Your task to perform on an android device: move an email to a new category in the gmail app Image 0: 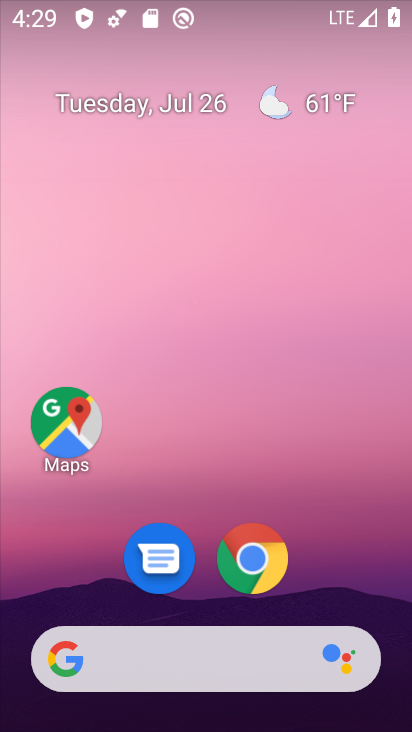
Step 0: drag from (183, 558) to (261, 1)
Your task to perform on an android device: move an email to a new category in the gmail app Image 1: 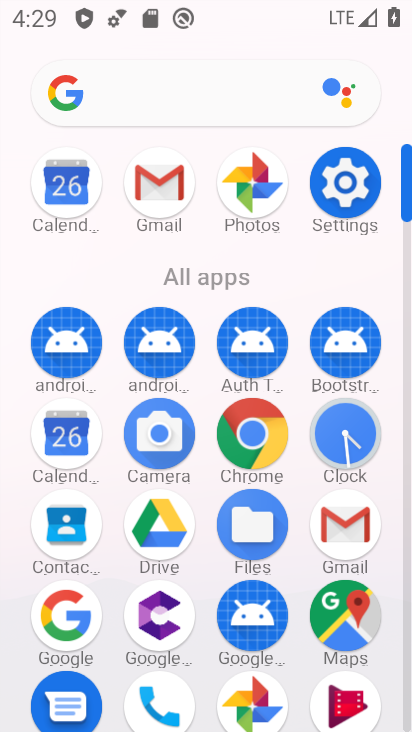
Step 1: click (169, 182)
Your task to perform on an android device: move an email to a new category in the gmail app Image 2: 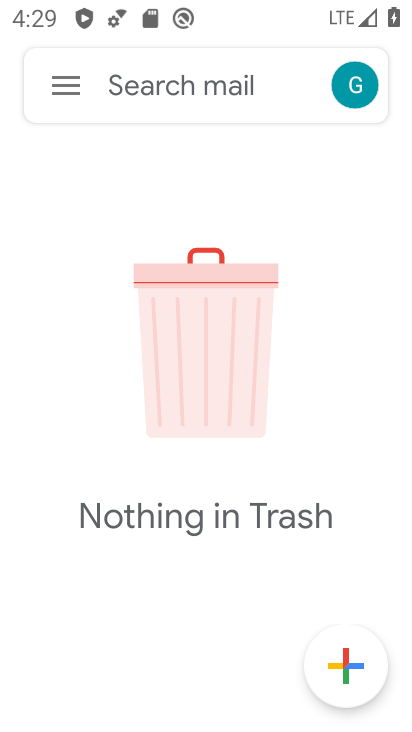
Step 2: click (59, 80)
Your task to perform on an android device: move an email to a new category in the gmail app Image 3: 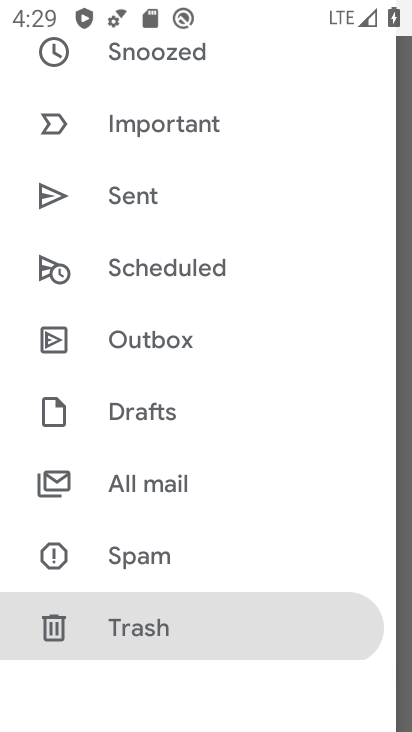
Step 3: click (128, 480)
Your task to perform on an android device: move an email to a new category in the gmail app Image 4: 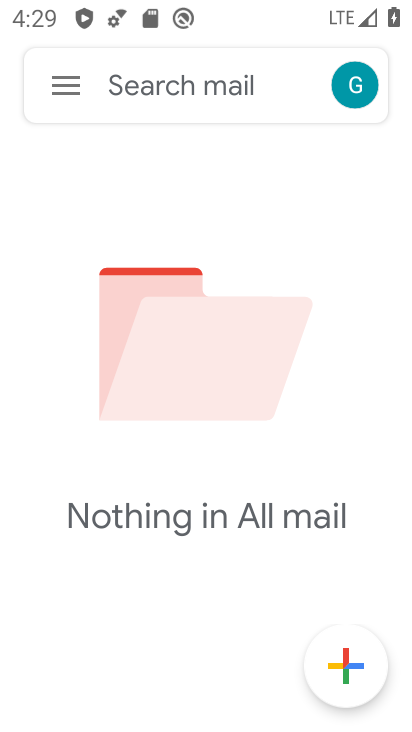
Step 4: task complete